Your task to perform on an android device: search for starred emails in the gmail app Image 0: 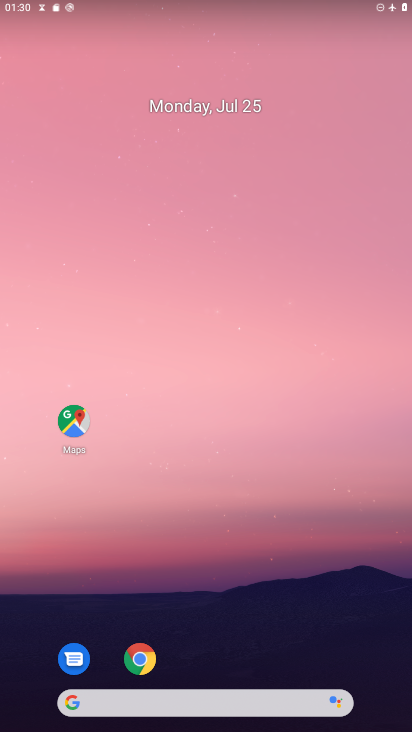
Step 0: drag from (275, 655) to (312, 90)
Your task to perform on an android device: search for starred emails in the gmail app Image 1: 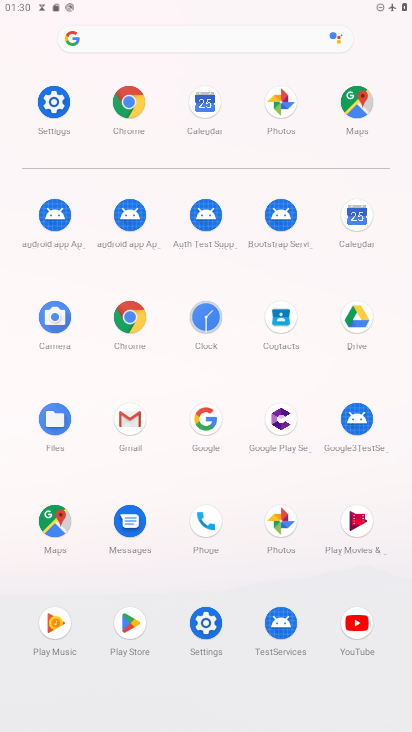
Step 1: click (131, 417)
Your task to perform on an android device: search for starred emails in the gmail app Image 2: 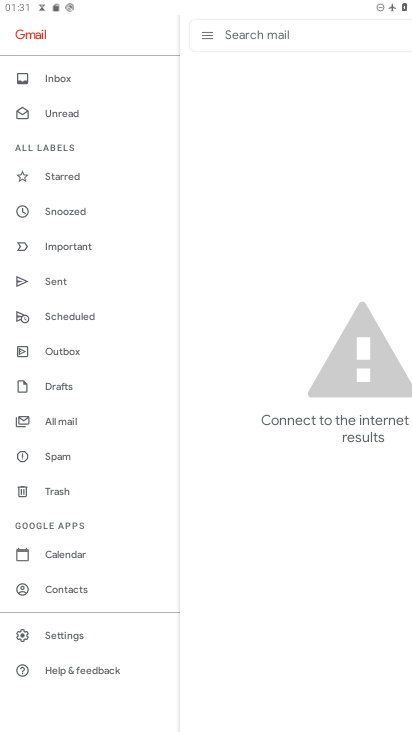
Step 2: click (74, 176)
Your task to perform on an android device: search for starred emails in the gmail app Image 3: 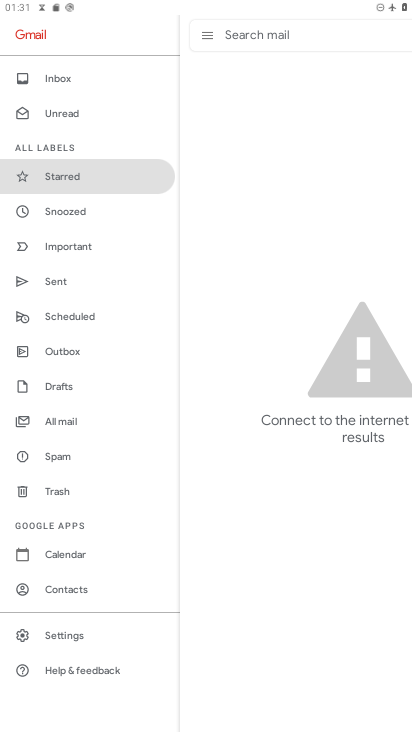
Step 3: task complete